Your task to perform on an android device: turn on javascript in the chrome app Image 0: 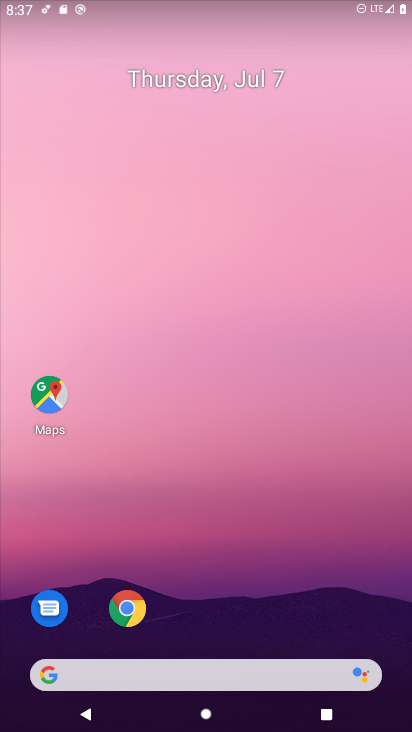
Step 0: click (127, 605)
Your task to perform on an android device: turn on javascript in the chrome app Image 1: 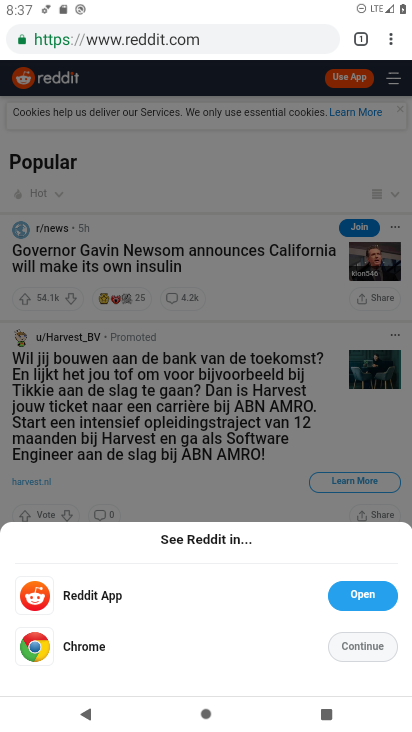
Step 1: click (389, 40)
Your task to perform on an android device: turn on javascript in the chrome app Image 2: 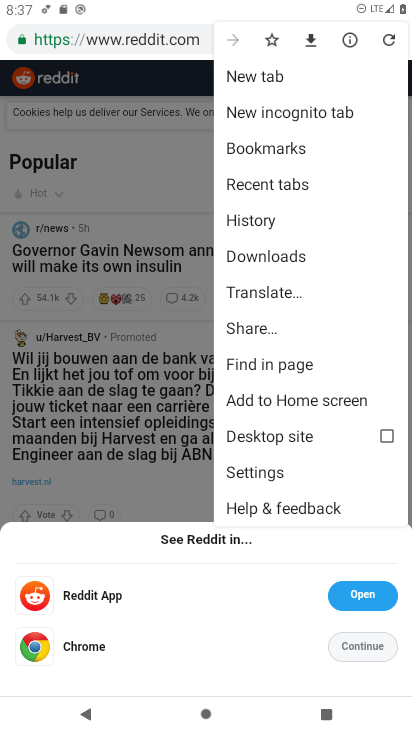
Step 2: click (269, 468)
Your task to perform on an android device: turn on javascript in the chrome app Image 3: 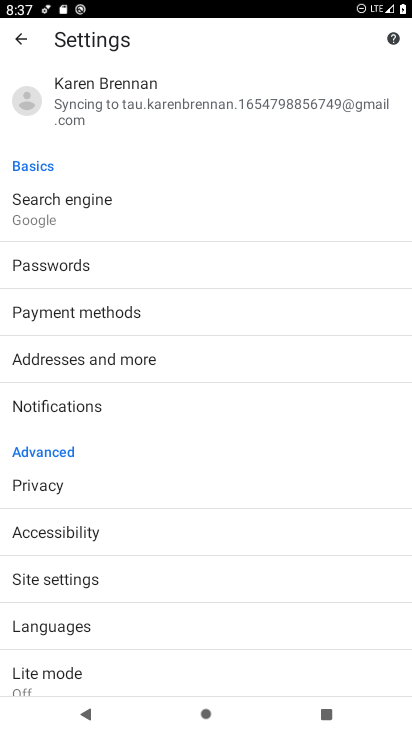
Step 3: click (67, 571)
Your task to perform on an android device: turn on javascript in the chrome app Image 4: 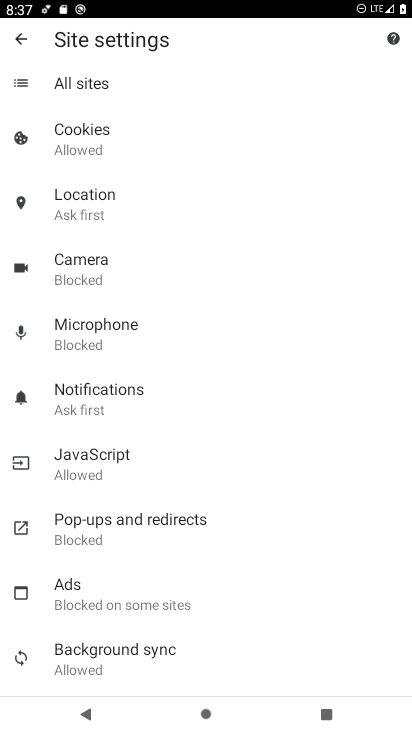
Step 4: click (68, 454)
Your task to perform on an android device: turn on javascript in the chrome app Image 5: 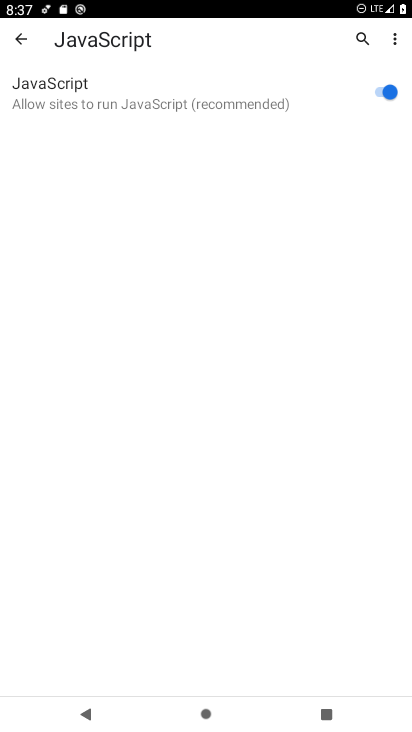
Step 5: task complete